Your task to perform on an android device: open the mobile data screen to see how much data has been used Image 0: 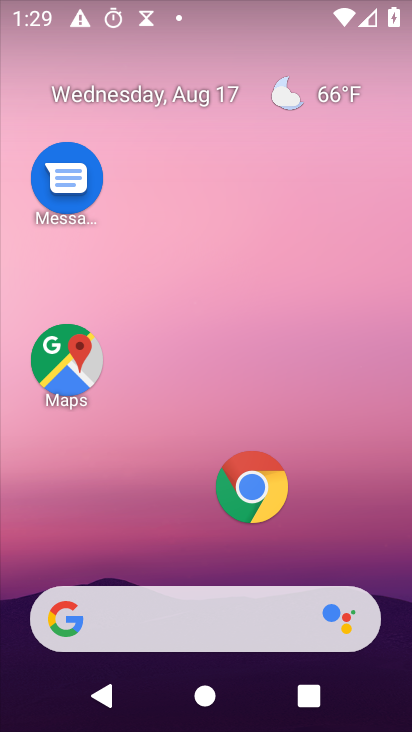
Step 0: click (182, 141)
Your task to perform on an android device: open the mobile data screen to see how much data has been used Image 1: 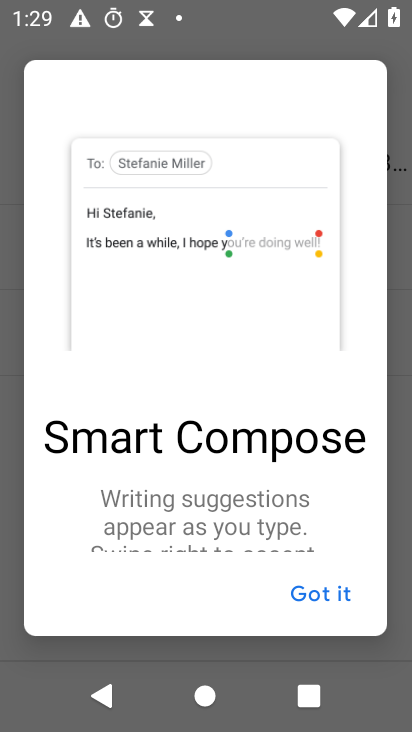
Step 1: press home button
Your task to perform on an android device: open the mobile data screen to see how much data has been used Image 2: 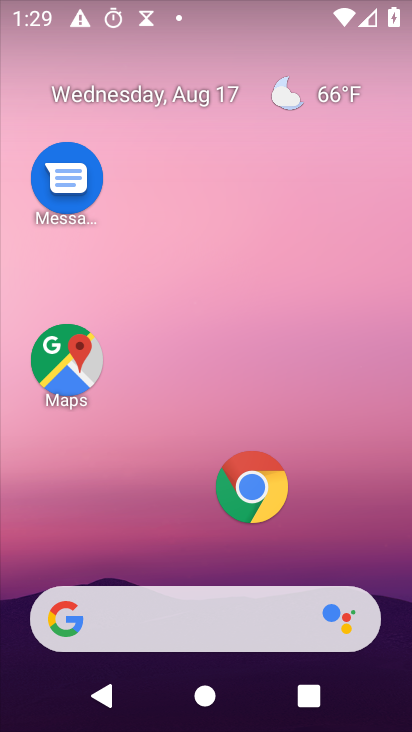
Step 2: drag from (191, 581) to (231, 178)
Your task to perform on an android device: open the mobile data screen to see how much data has been used Image 3: 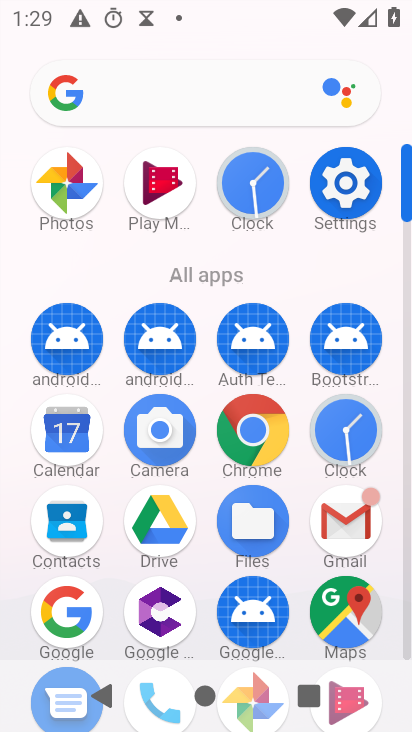
Step 3: click (338, 209)
Your task to perform on an android device: open the mobile data screen to see how much data has been used Image 4: 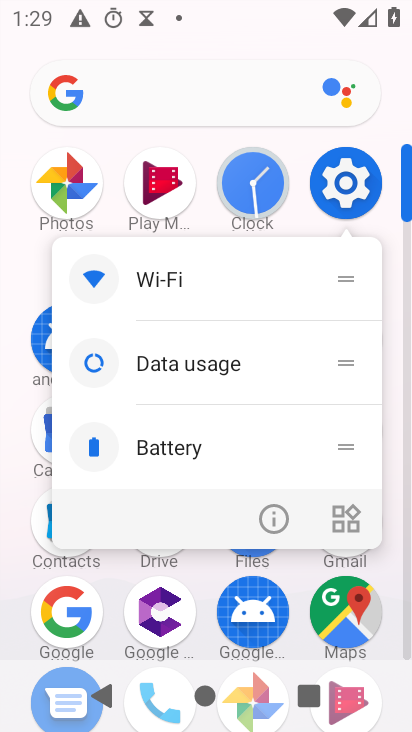
Step 4: click (203, 363)
Your task to perform on an android device: open the mobile data screen to see how much data has been used Image 5: 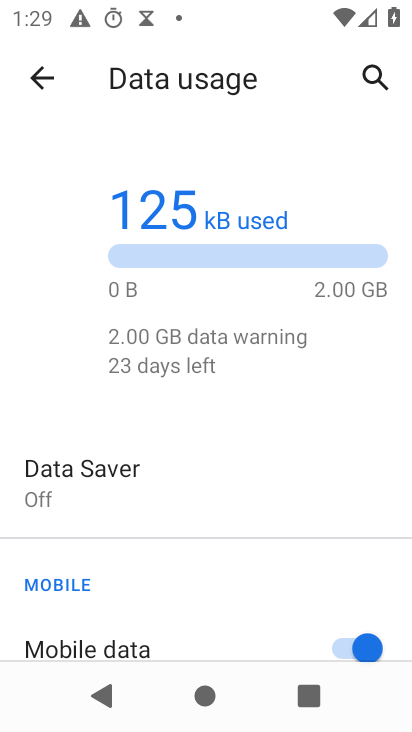
Step 5: task complete